Your task to perform on an android device: see sites visited before in the chrome app Image 0: 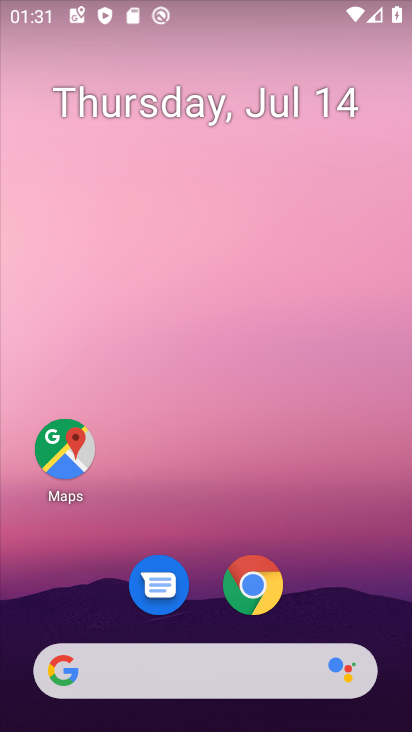
Step 0: click (271, 574)
Your task to perform on an android device: see sites visited before in the chrome app Image 1: 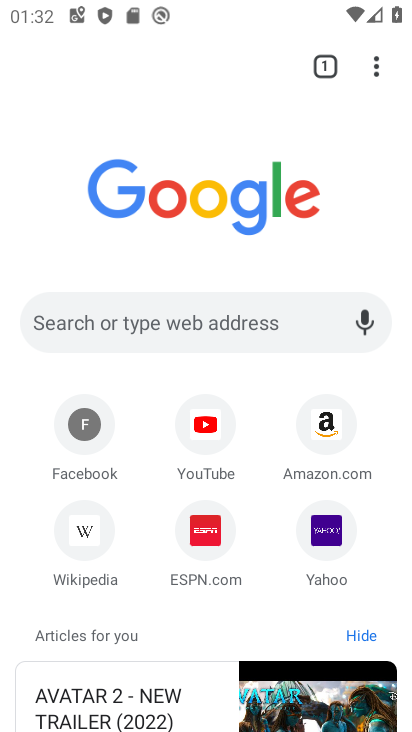
Step 1: click (374, 59)
Your task to perform on an android device: see sites visited before in the chrome app Image 2: 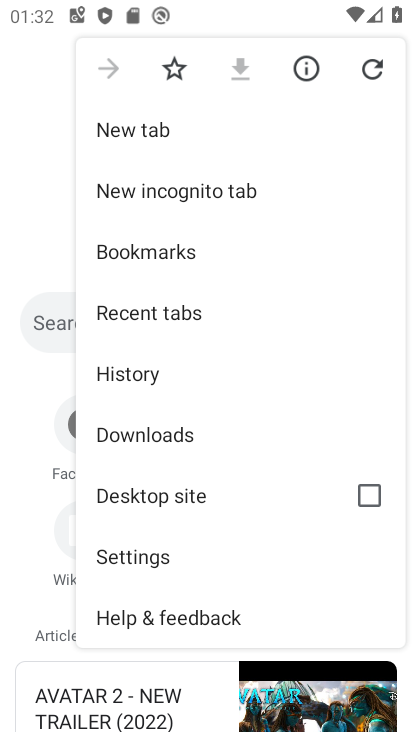
Step 2: click (181, 312)
Your task to perform on an android device: see sites visited before in the chrome app Image 3: 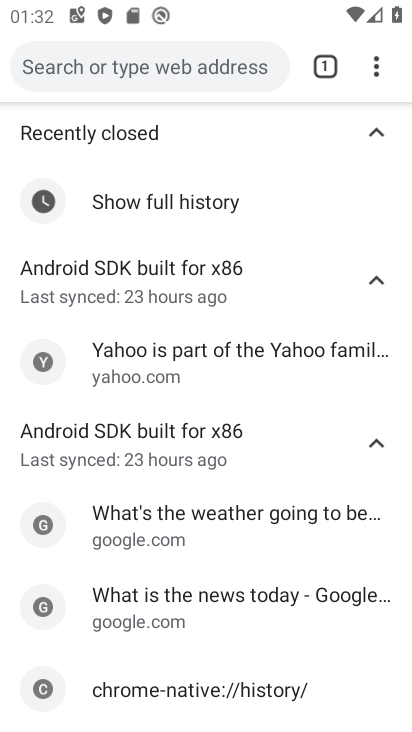
Step 3: task complete